Your task to perform on an android device: open app "Facebook Messenger" (install if not already installed) and enter user name: "divorce@inbox.com" and password: "caviar" Image 0: 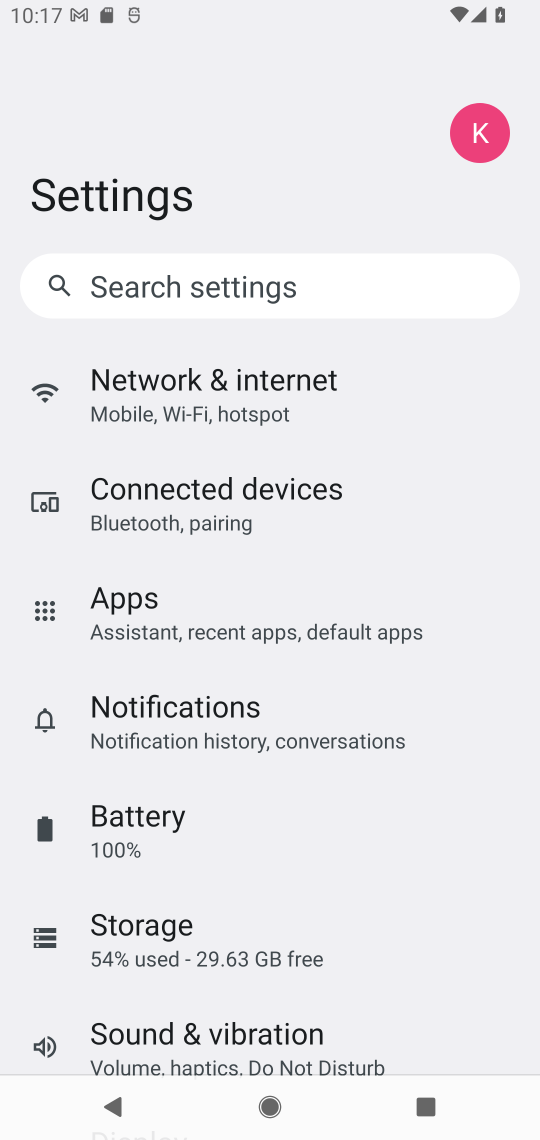
Step 0: press home button
Your task to perform on an android device: open app "Facebook Messenger" (install if not already installed) and enter user name: "divorce@inbox.com" and password: "caviar" Image 1: 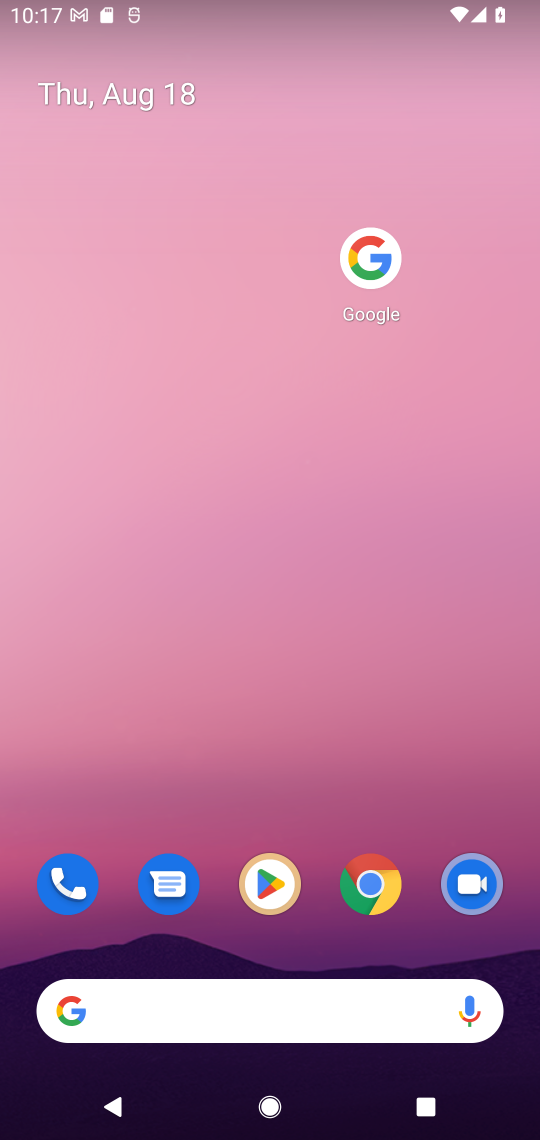
Step 1: click (280, 864)
Your task to perform on an android device: open app "Facebook Messenger" (install if not already installed) and enter user name: "divorce@inbox.com" and password: "caviar" Image 2: 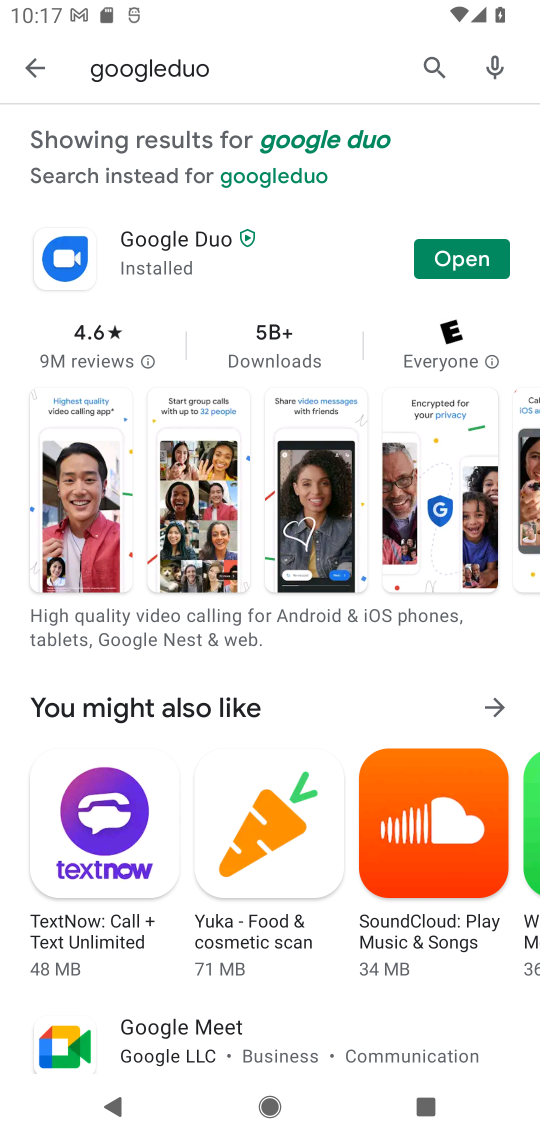
Step 2: task complete